Your task to perform on an android device: delete location history Image 0: 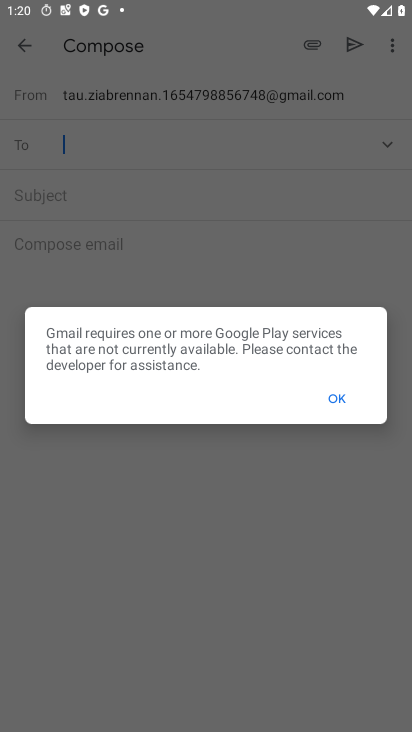
Step 0: press home button
Your task to perform on an android device: delete location history Image 1: 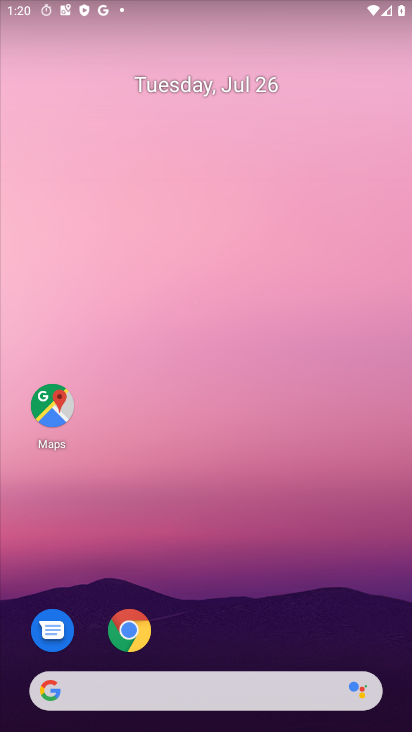
Step 1: drag from (162, 563) to (82, 121)
Your task to perform on an android device: delete location history Image 2: 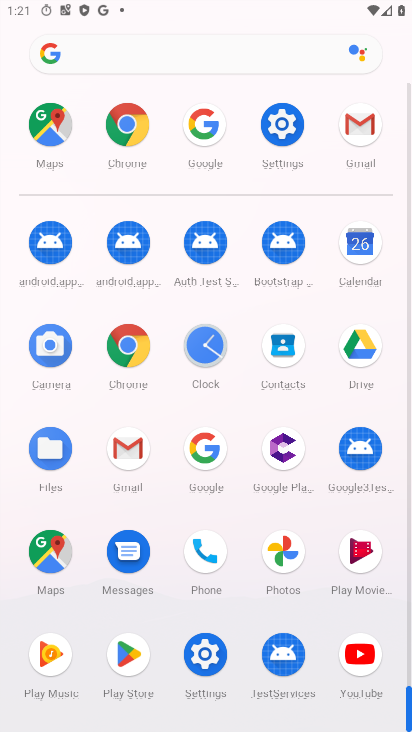
Step 2: click (56, 554)
Your task to perform on an android device: delete location history Image 3: 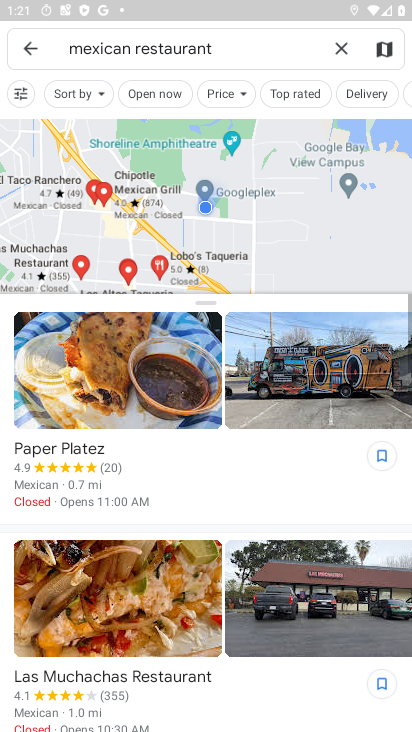
Step 3: click (17, 50)
Your task to perform on an android device: delete location history Image 4: 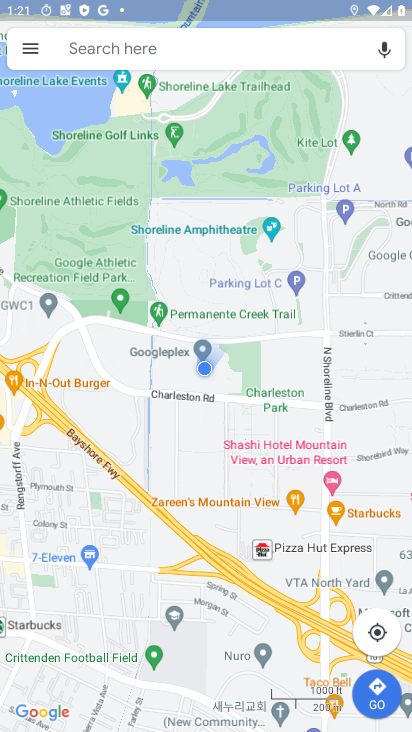
Step 4: click (27, 50)
Your task to perform on an android device: delete location history Image 5: 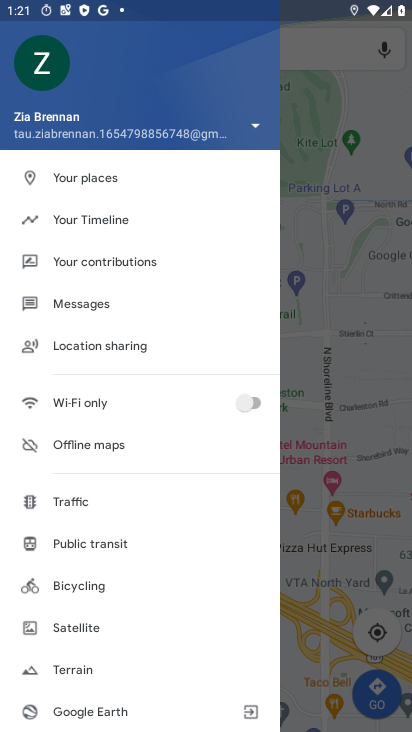
Step 5: click (82, 216)
Your task to perform on an android device: delete location history Image 6: 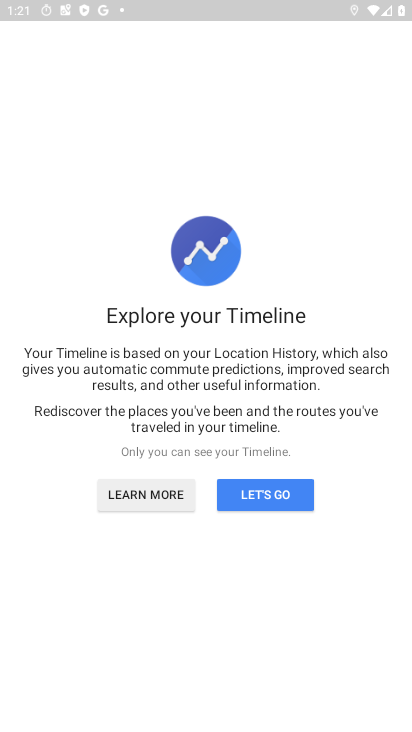
Step 6: click (249, 500)
Your task to perform on an android device: delete location history Image 7: 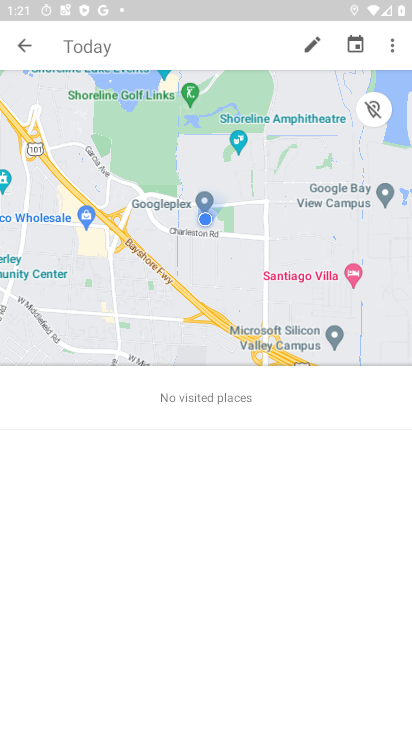
Step 7: click (389, 46)
Your task to perform on an android device: delete location history Image 8: 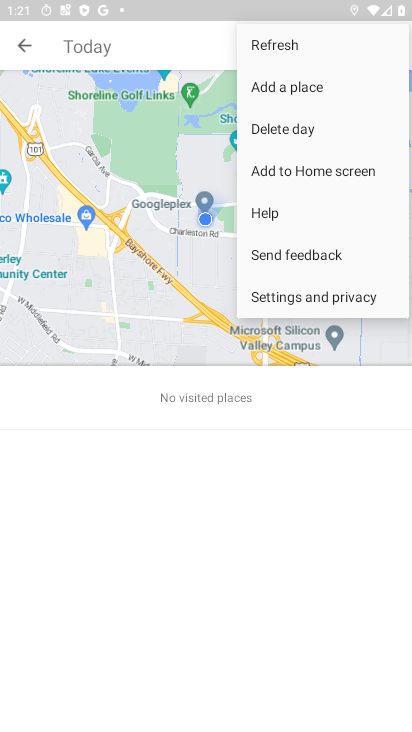
Step 8: click (278, 300)
Your task to perform on an android device: delete location history Image 9: 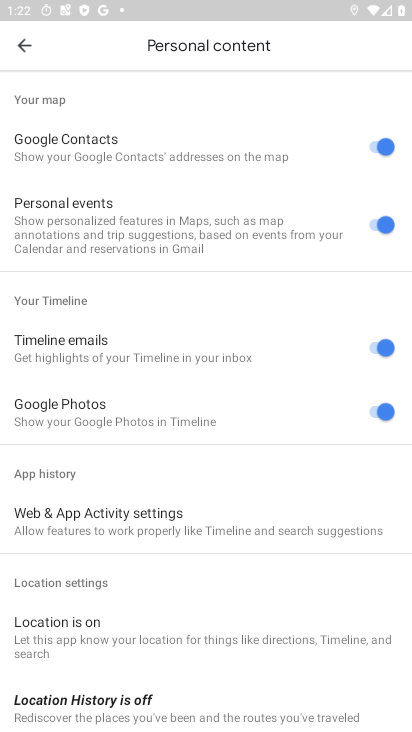
Step 9: drag from (101, 595) to (210, 114)
Your task to perform on an android device: delete location history Image 10: 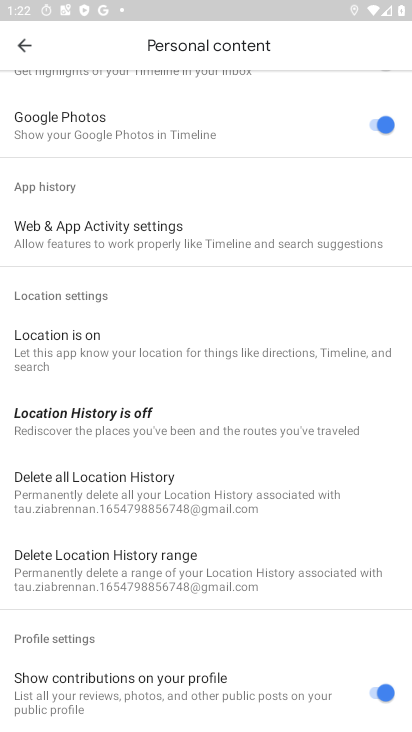
Step 10: click (59, 498)
Your task to perform on an android device: delete location history Image 11: 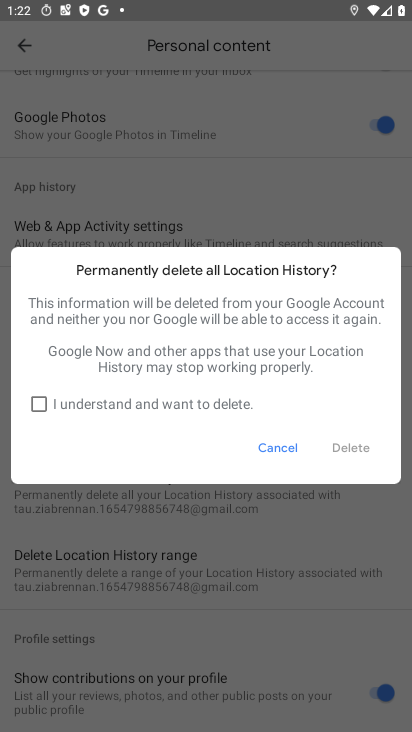
Step 11: click (38, 405)
Your task to perform on an android device: delete location history Image 12: 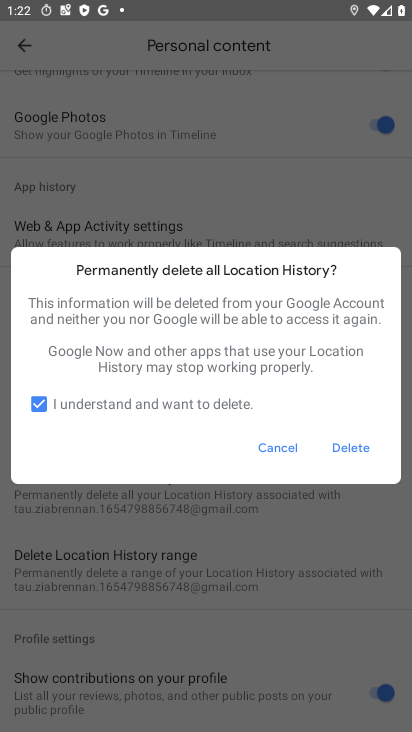
Step 12: click (348, 449)
Your task to perform on an android device: delete location history Image 13: 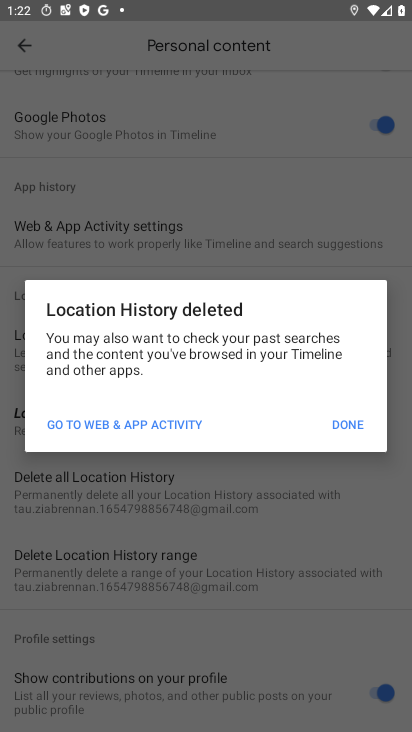
Step 13: click (342, 422)
Your task to perform on an android device: delete location history Image 14: 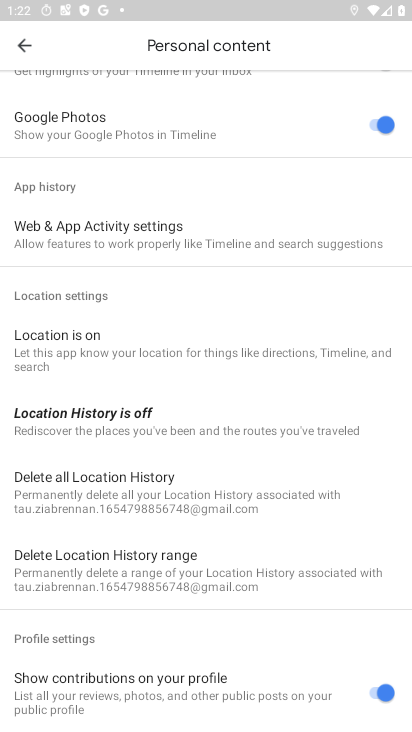
Step 14: task complete